Your task to perform on an android device: Open Google Chrome and open the bookmarks view Image 0: 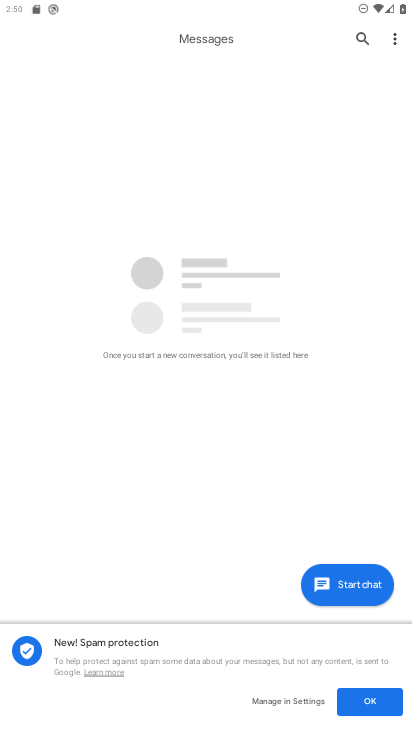
Step 0: press back button
Your task to perform on an android device: Open Google Chrome and open the bookmarks view Image 1: 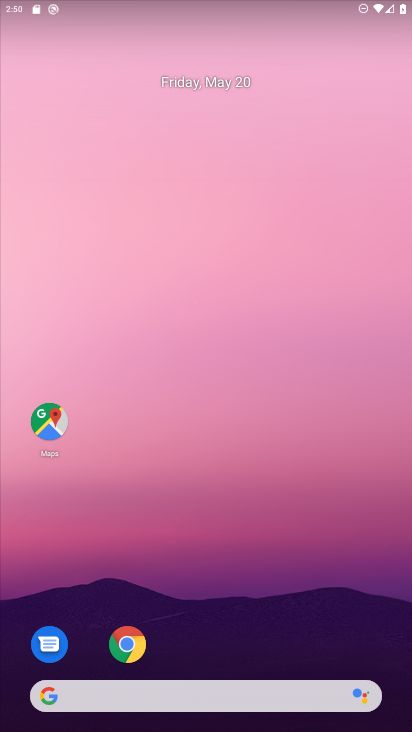
Step 1: click (128, 644)
Your task to perform on an android device: Open Google Chrome and open the bookmarks view Image 2: 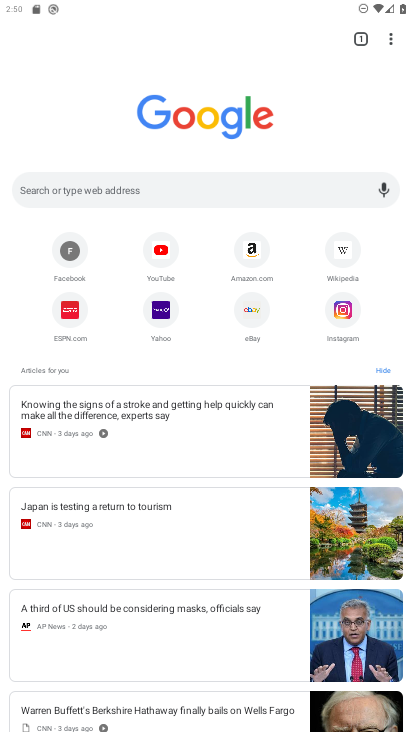
Step 2: click (392, 37)
Your task to perform on an android device: Open Google Chrome and open the bookmarks view Image 3: 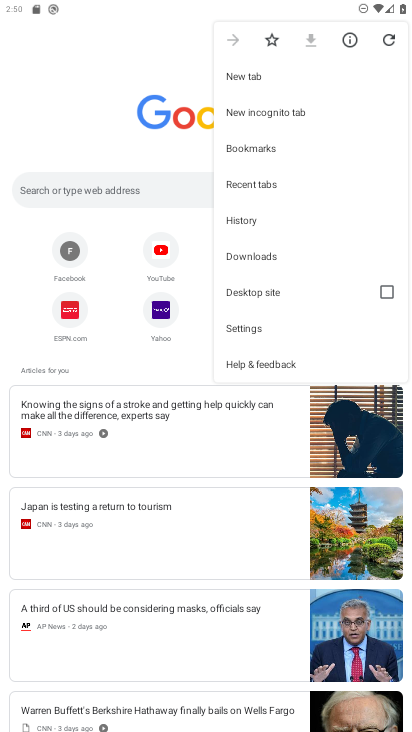
Step 3: click (271, 151)
Your task to perform on an android device: Open Google Chrome and open the bookmarks view Image 4: 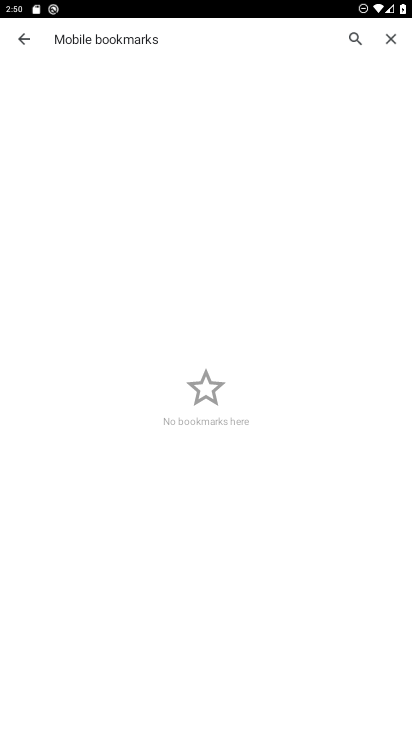
Step 4: task complete